Your task to perform on an android device: What's the weather? Image 0: 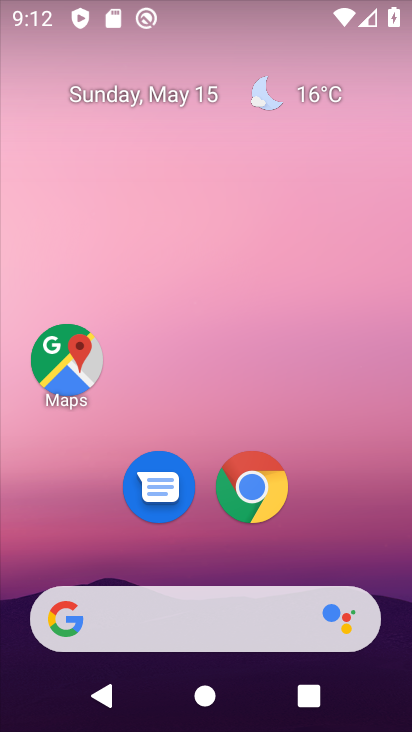
Step 0: drag from (357, 531) to (328, 173)
Your task to perform on an android device: What's the weather? Image 1: 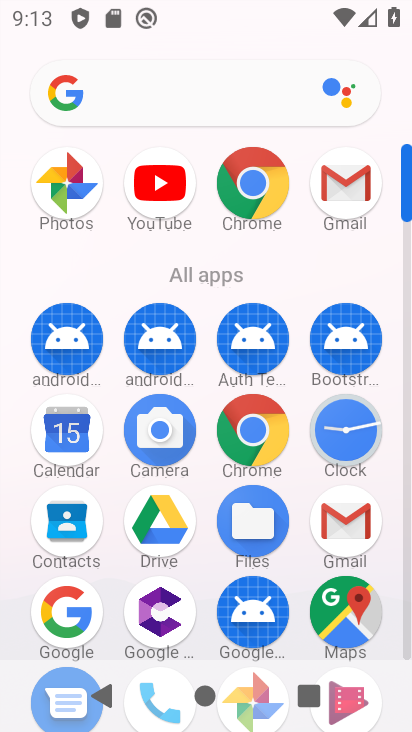
Step 1: click (256, 443)
Your task to perform on an android device: What's the weather? Image 2: 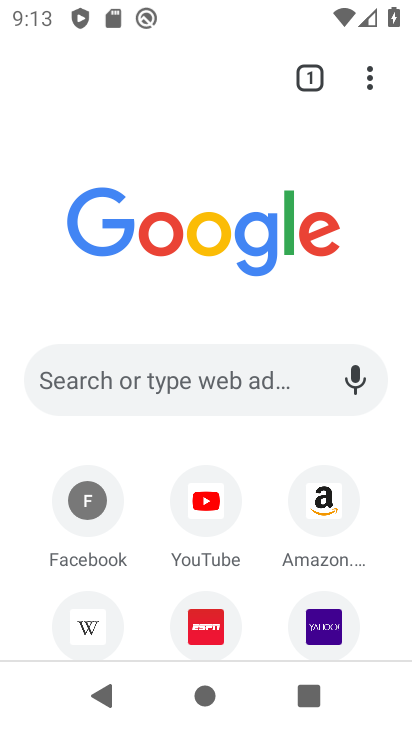
Step 2: click (238, 387)
Your task to perform on an android device: What's the weather? Image 3: 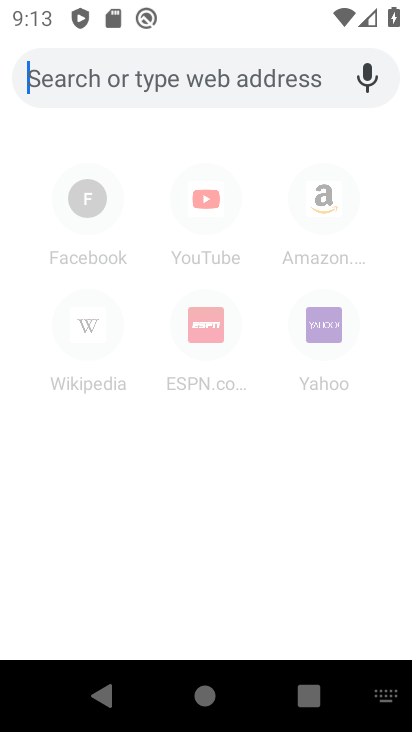
Step 3: type "what's the weather"
Your task to perform on an android device: What's the weather? Image 4: 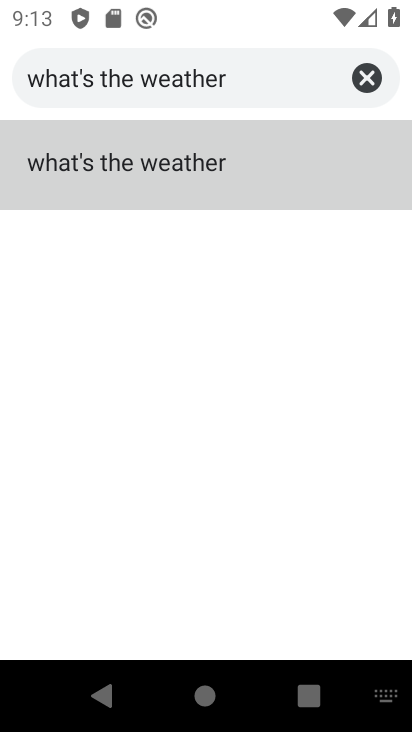
Step 4: click (219, 165)
Your task to perform on an android device: What's the weather? Image 5: 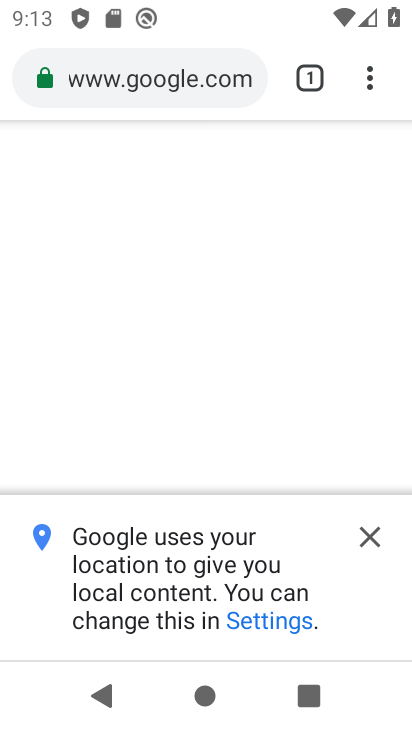
Step 5: click (363, 544)
Your task to perform on an android device: What's the weather? Image 6: 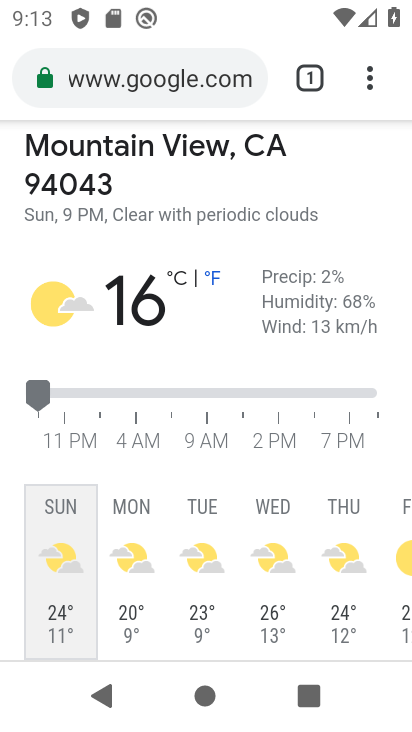
Step 6: task complete